Your task to perform on an android device: Go to wifi settings Image 0: 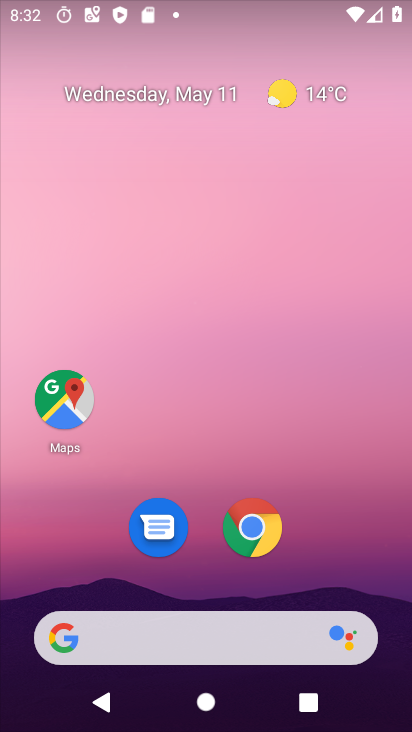
Step 0: drag from (235, 608) to (409, 8)
Your task to perform on an android device: Go to wifi settings Image 1: 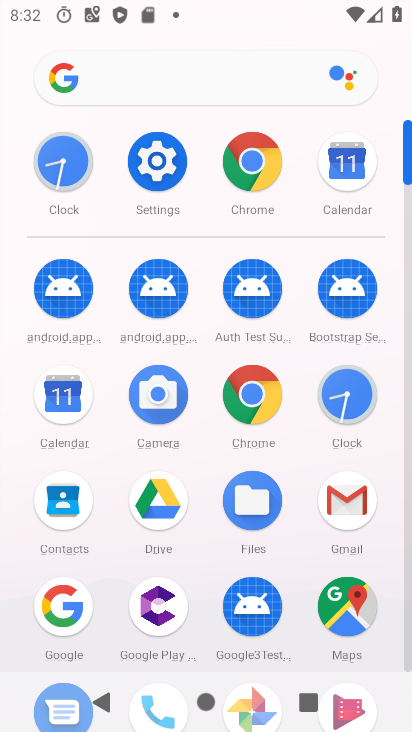
Step 1: click (179, 190)
Your task to perform on an android device: Go to wifi settings Image 2: 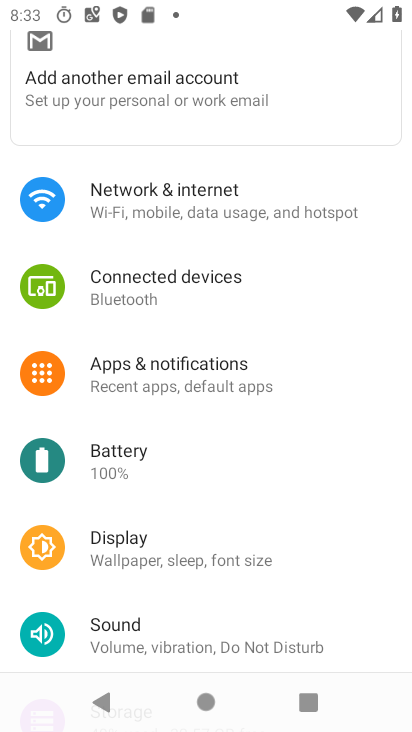
Step 2: click (218, 221)
Your task to perform on an android device: Go to wifi settings Image 3: 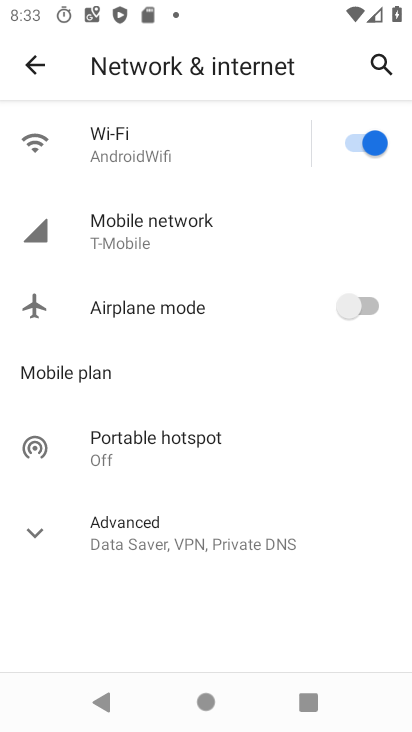
Step 3: click (199, 144)
Your task to perform on an android device: Go to wifi settings Image 4: 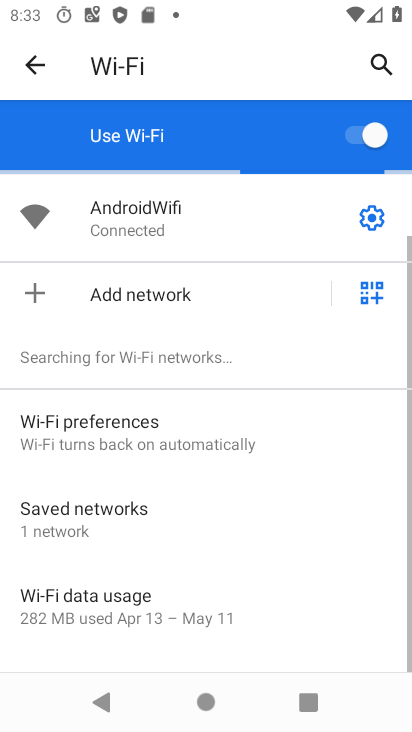
Step 4: task complete